Your task to perform on an android device: Add razer blade to the cart on ebay, then select checkout. Image 0: 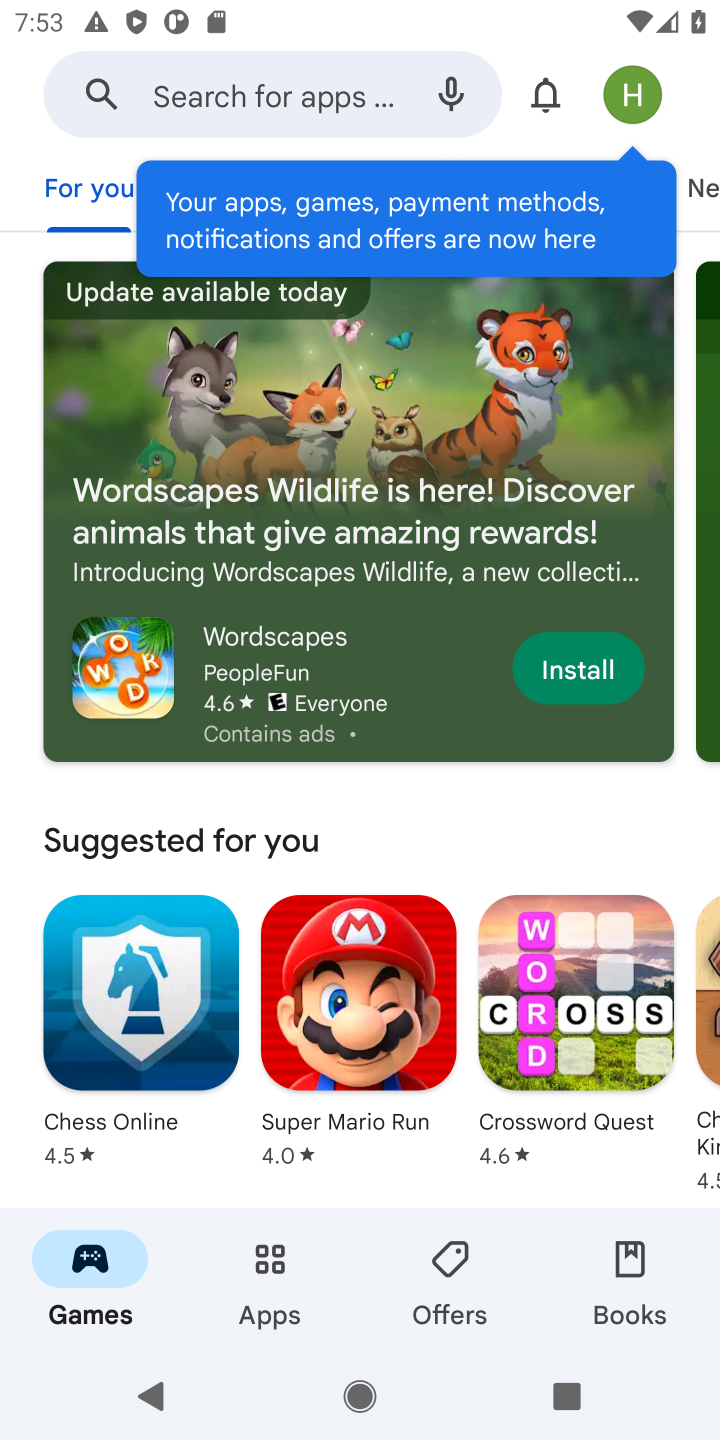
Step 0: press home button
Your task to perform on an android device: Add razer blade to the cart on ebay, then select checkout. Image 1: 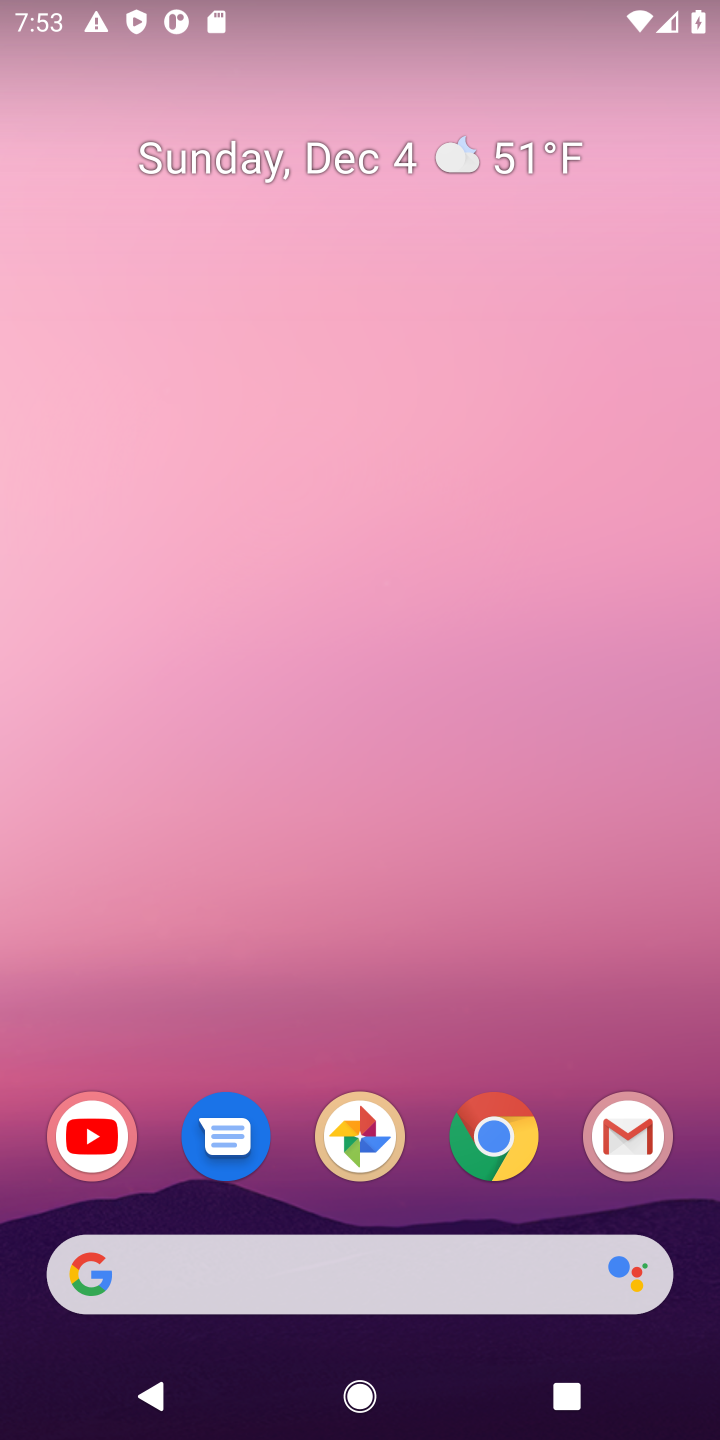
Step 1: click (494, 1152)
Your task to perform on an android device: Add razer blade to the cart on ebay, then select checkout. Image 2: 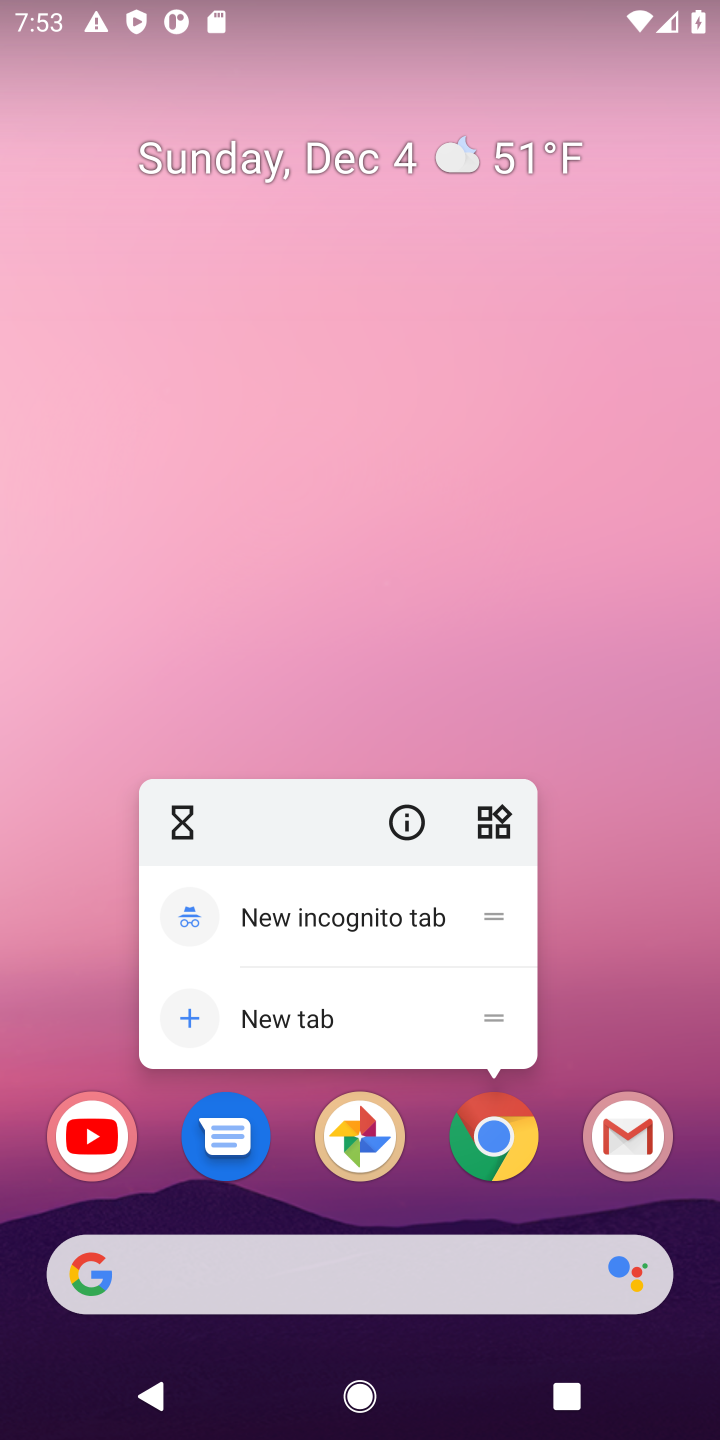
Step 2: click (494, 1152)
Your task to perform on an android device: Add razer blade to the cart on ebay, then select checkout. Image 3: 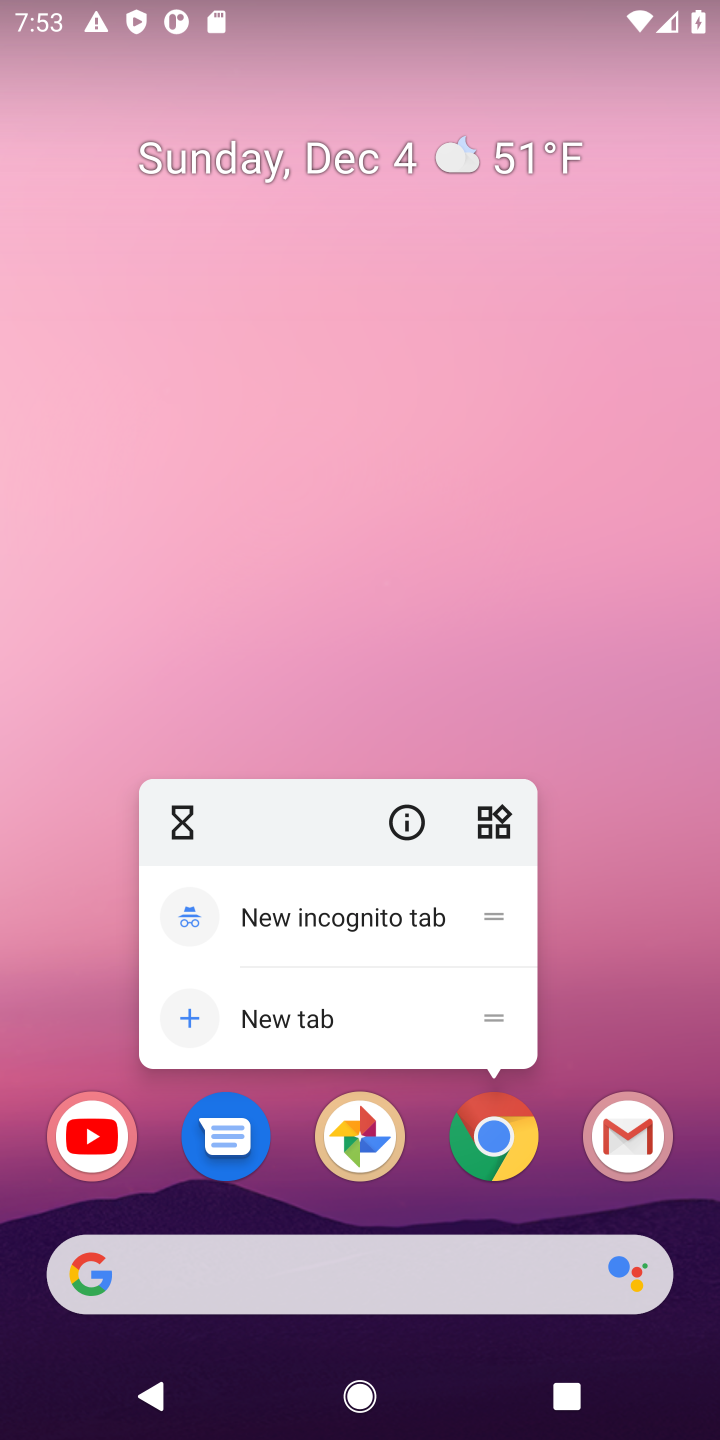
Step 3: click (494, 1150)
Your task to perform on an android device: Add razer blade to the cart on ebay, then select checkout. Image 4: 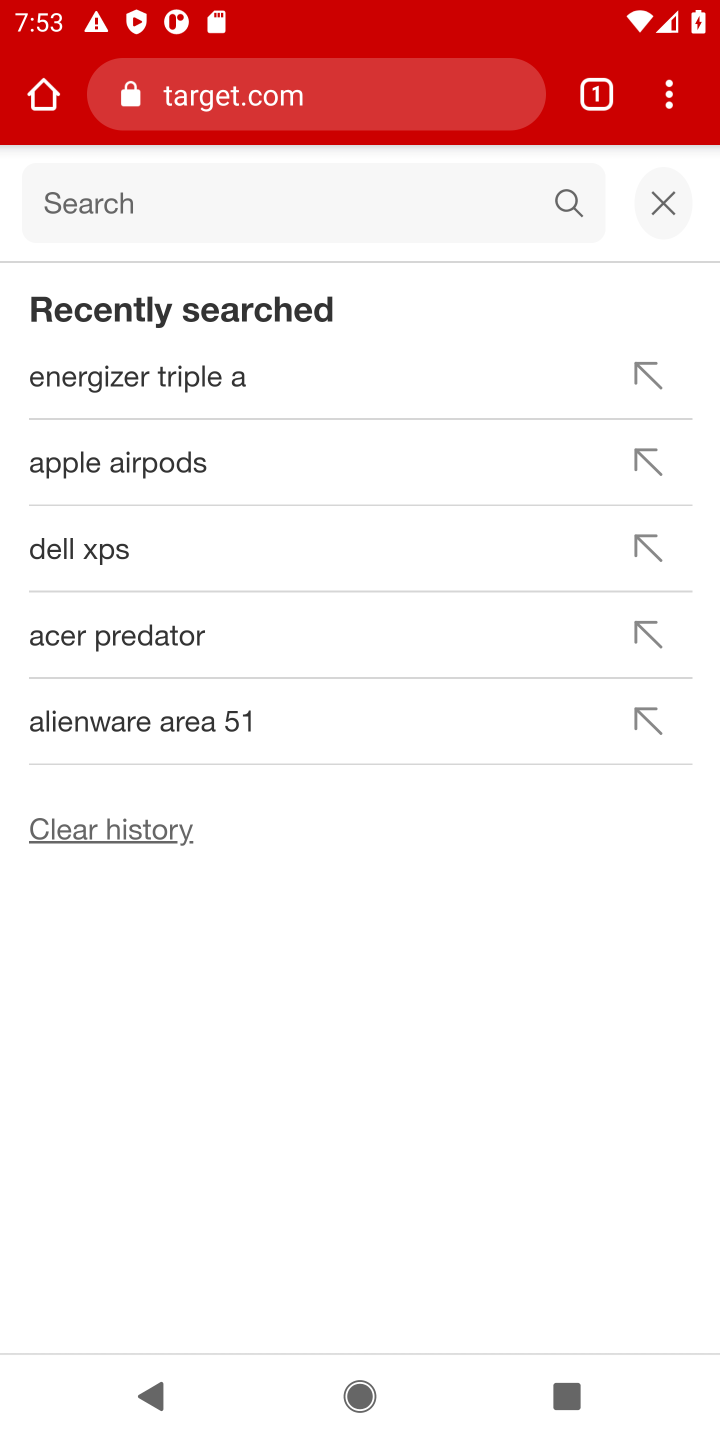
Step 4: click (229, 94)
Your task to perform on an android device: Add razer blade to the cart on ebay, then select checkout. Image 5: 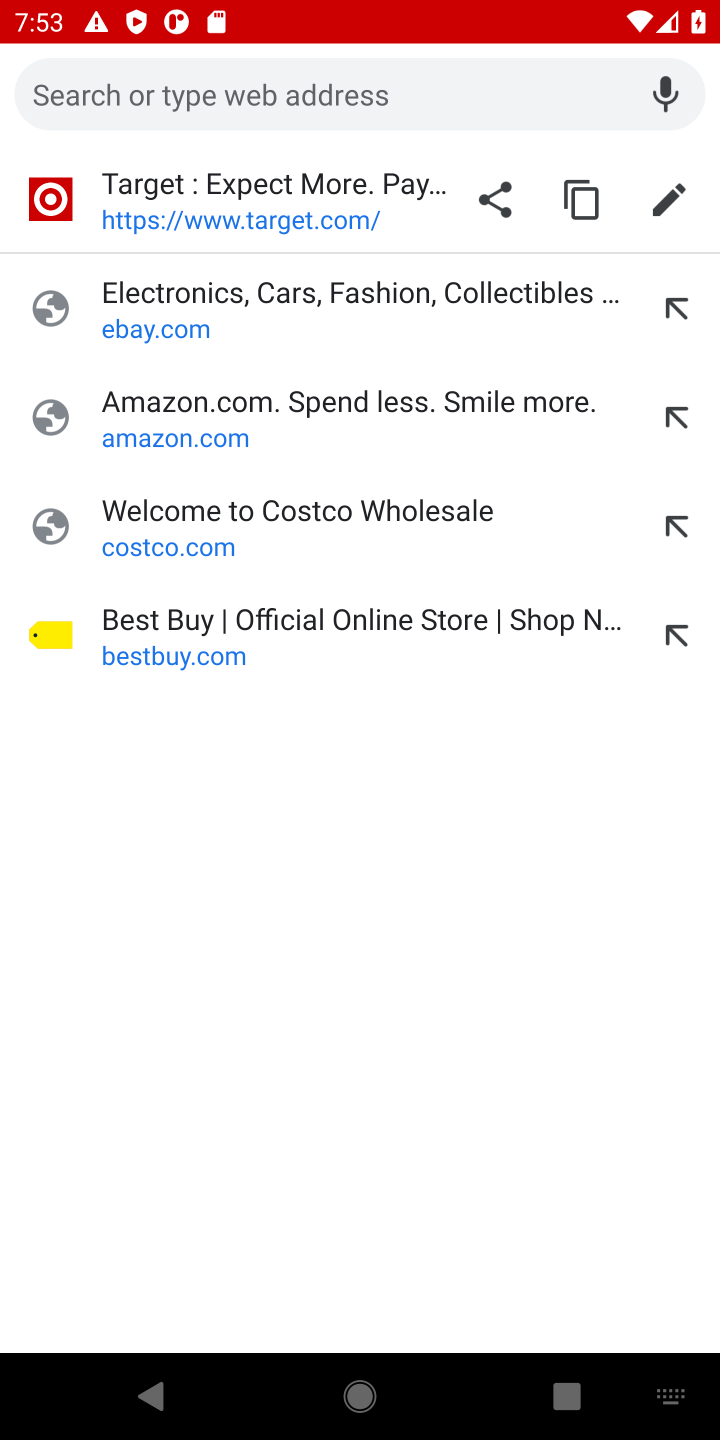
Step 5: click (134, 323)
Your task to perform on an android device: Add razer blade to the cart on ebay, then select checkout. Image 6: 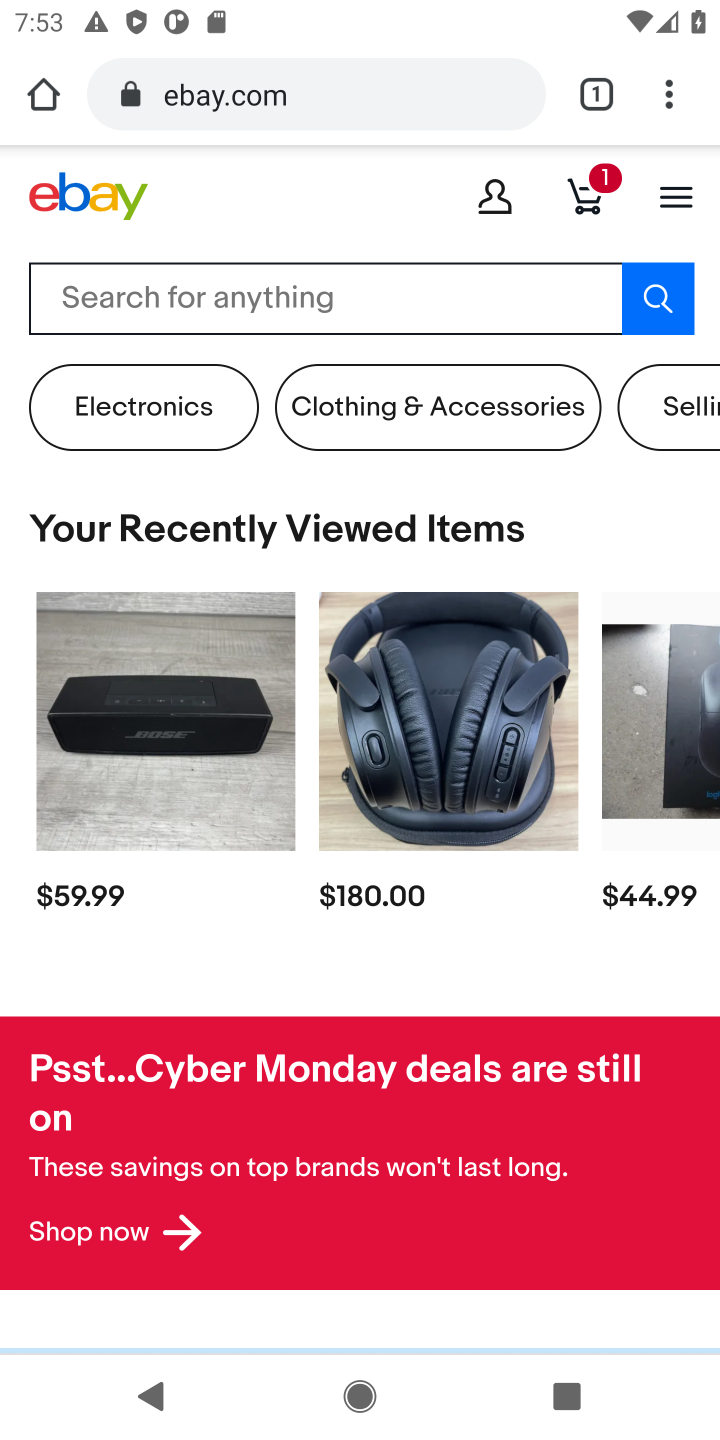
Step 6: click (105, 295)
Your task to perform on an android device: Add razer blade to the cart on ebay, then select checkout. Image 7: 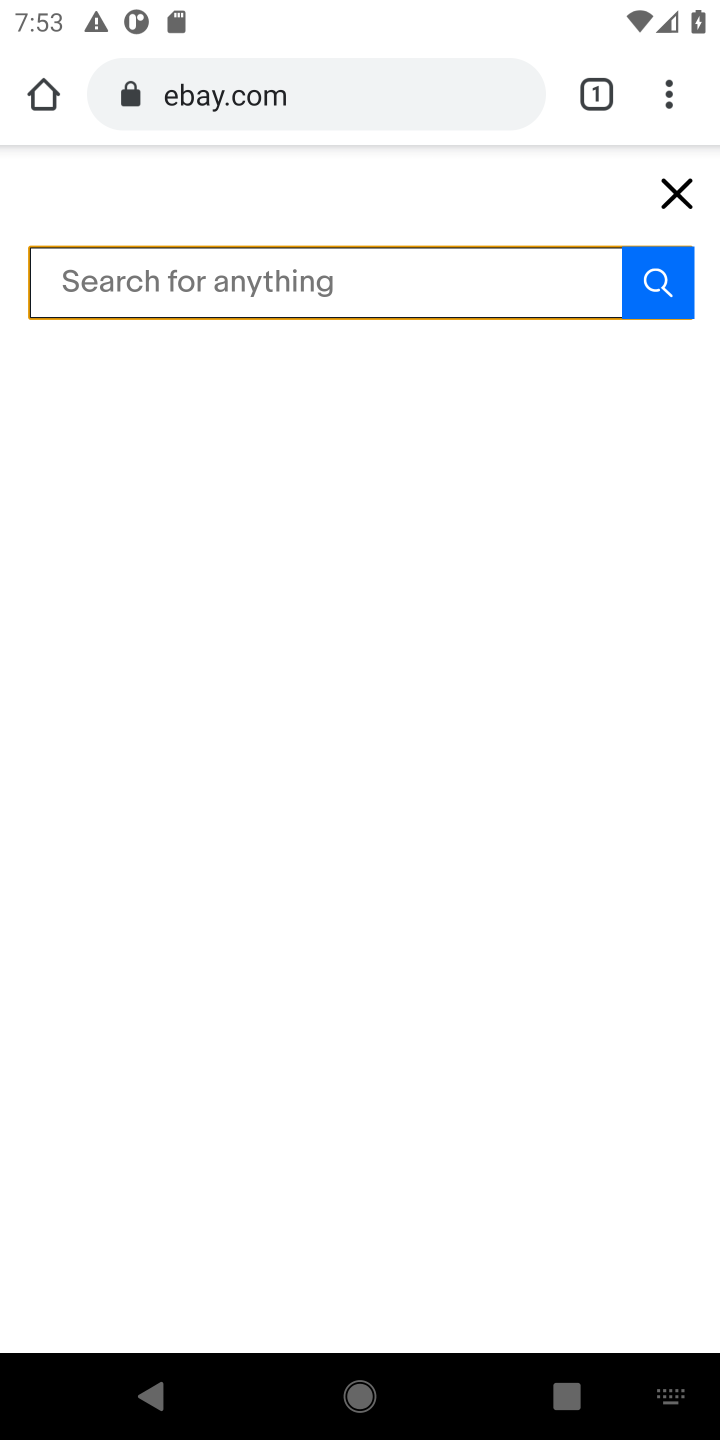
Step 7: type "razer blade"
Your task to perform on an android device: Add razer blade to the cart on ebay, then select checkout. Image 8: 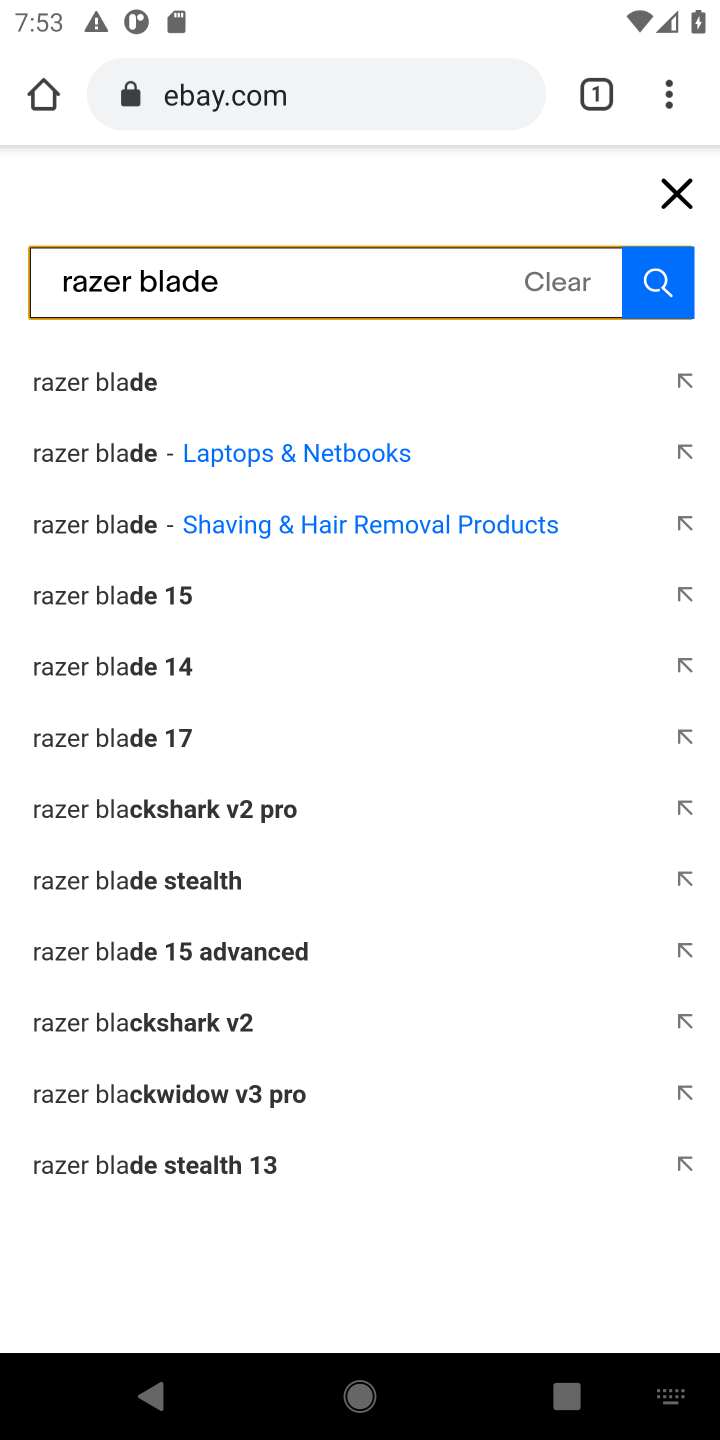
Step 8: click (126, 396)
Your task to perform on an android device: Add razer blade to the cart on ebay, then select checkout. Image 9: 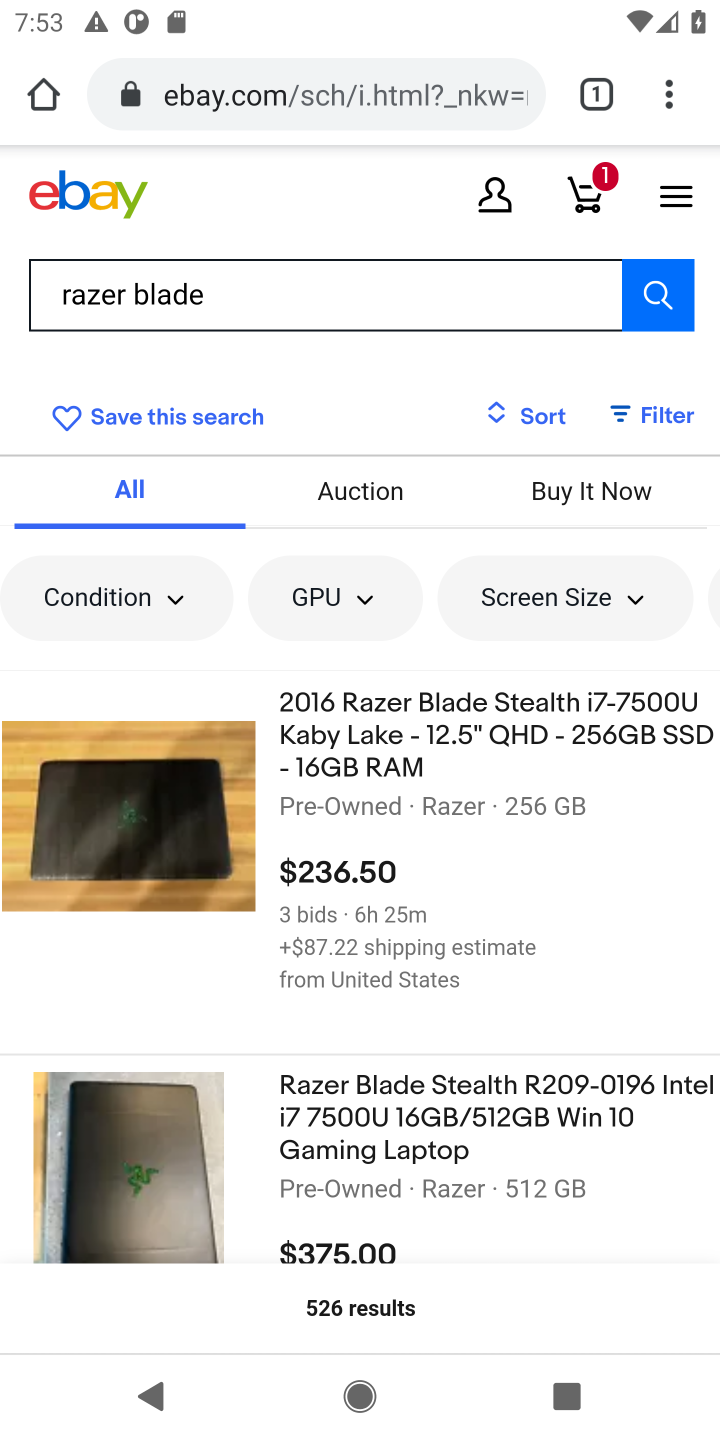
Step 9: drag from (506, 1086) to (496, 763)
Your task to perform on an android device: Add razer blade to the cart on ebay, then select checkout. Image 10: 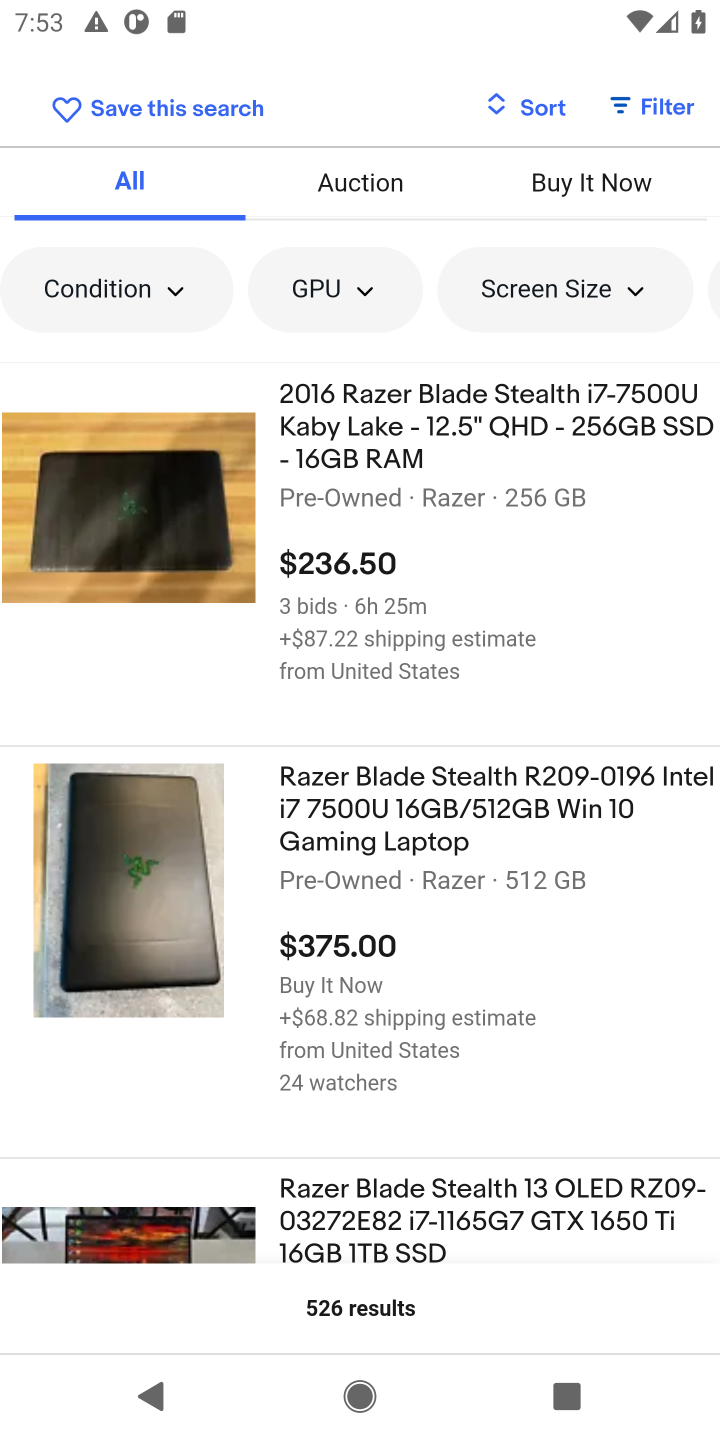
Step 10: click (347, 792)
Your task to perform on an android device: Add razer blade to the cart on ebay, then select checkout. Image 11: 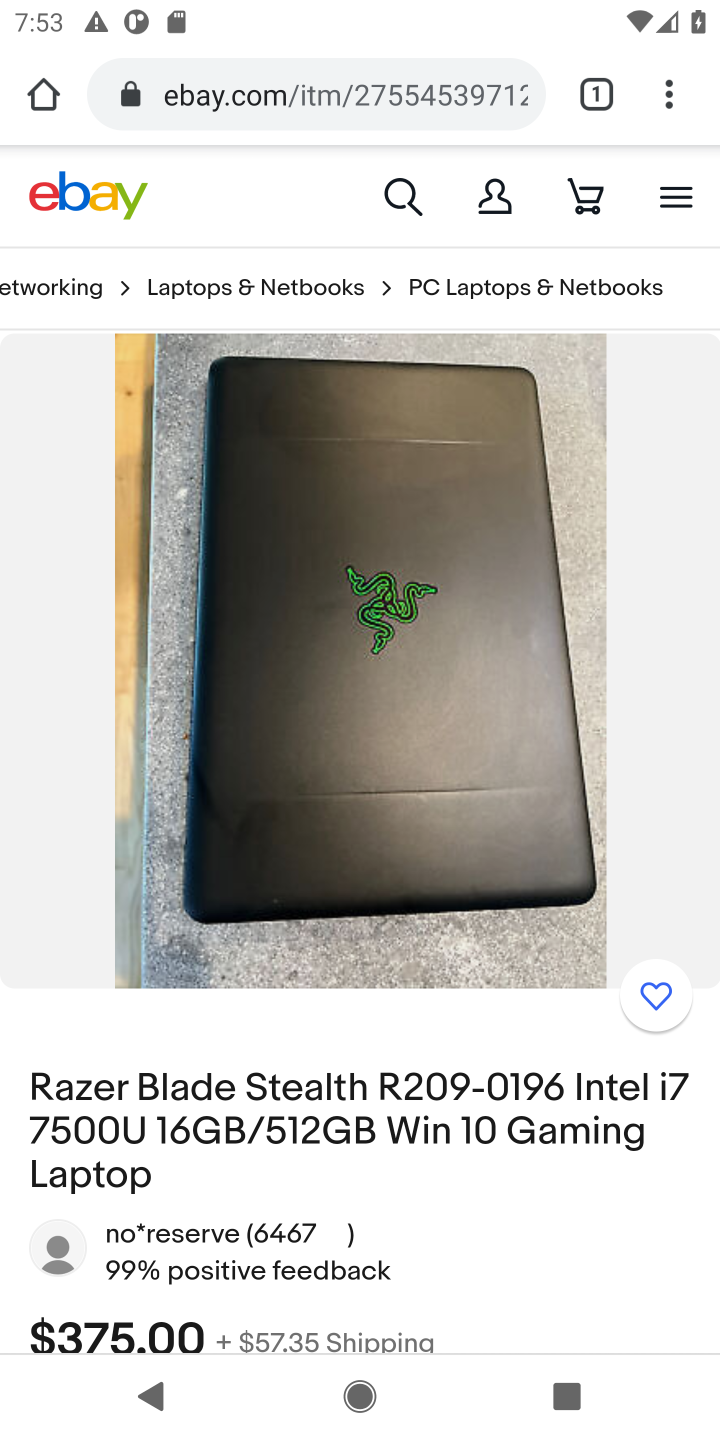
Step 11: drag from (451, 958) to (396, 546)
Your task to perform on an android device: Add razer blade to the cart on ebay, then select checkout. Image 12: 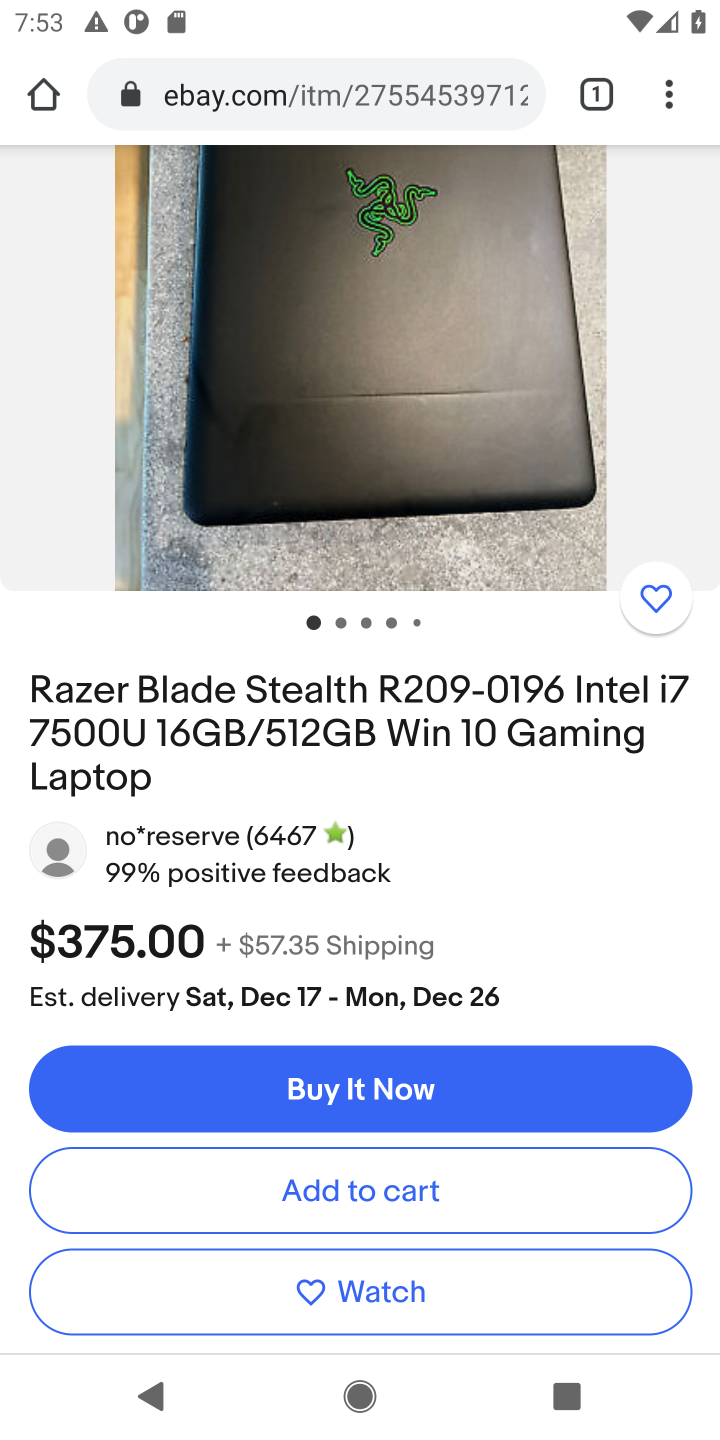
Step 12: click (344, 1198)
Your task to perform on an android device: Add razer blade to the cart on ebay, then select checkout. Image 13: 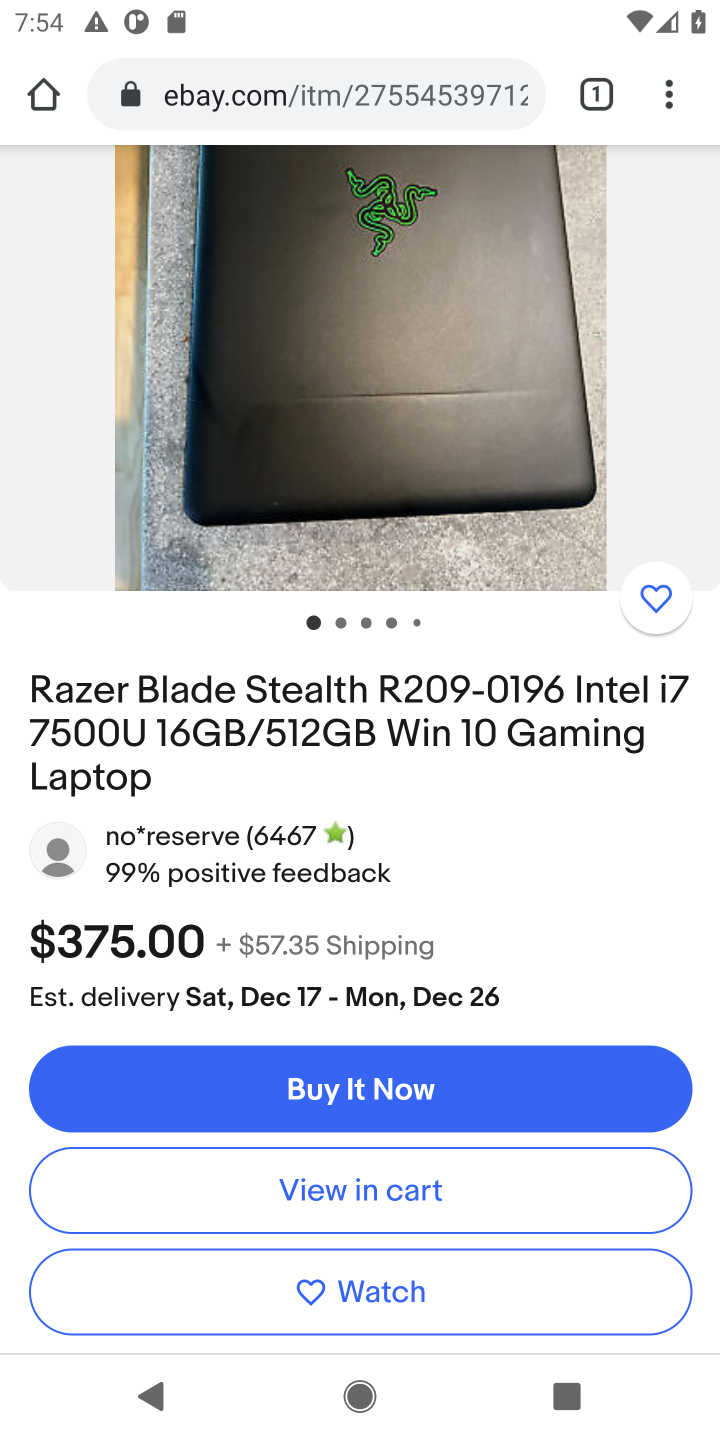
Step 13: click (344, 1198)
Your task to perform on an android device: Add razer blade to the cart on ebay, then select checkout. Image 14: 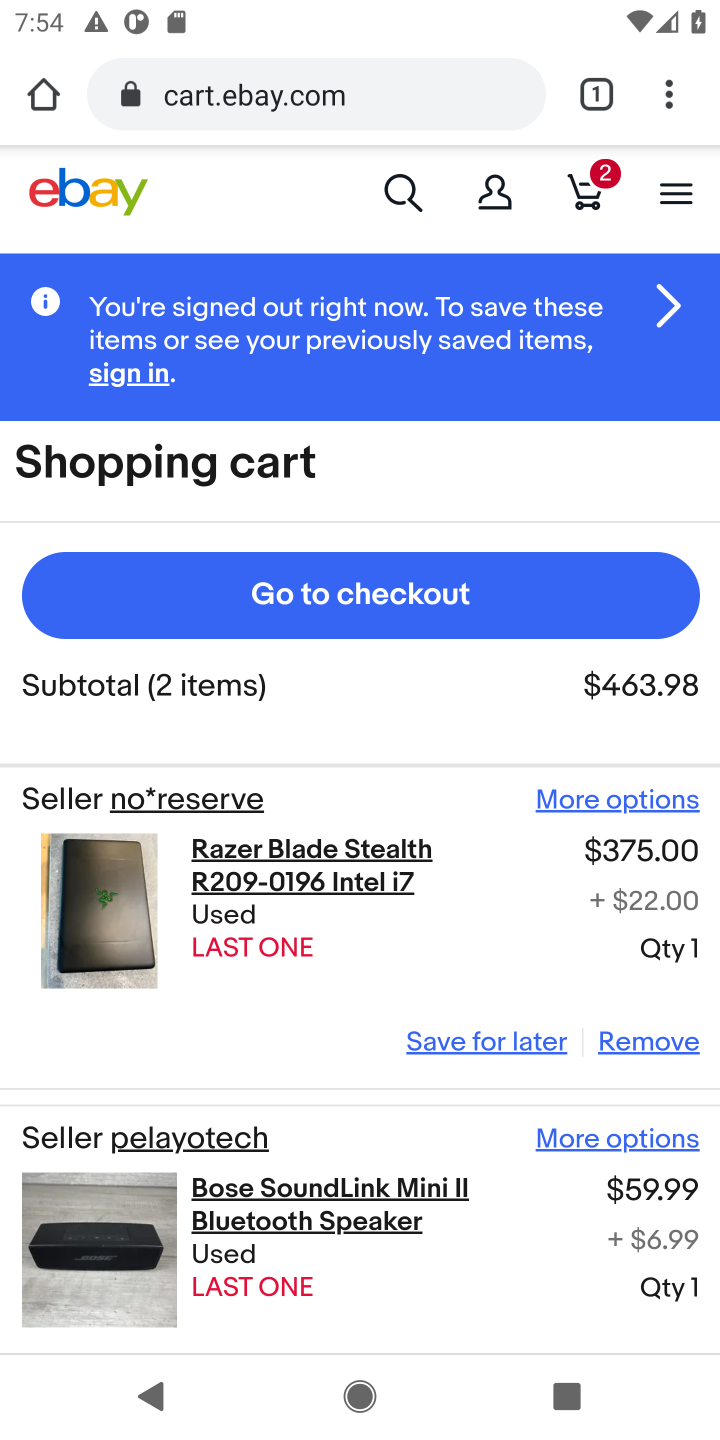
Step 14: click (347, 606)
Your task to perform on an android device: Add razer blade to the cart on ebay, then select checkout. Image 15: 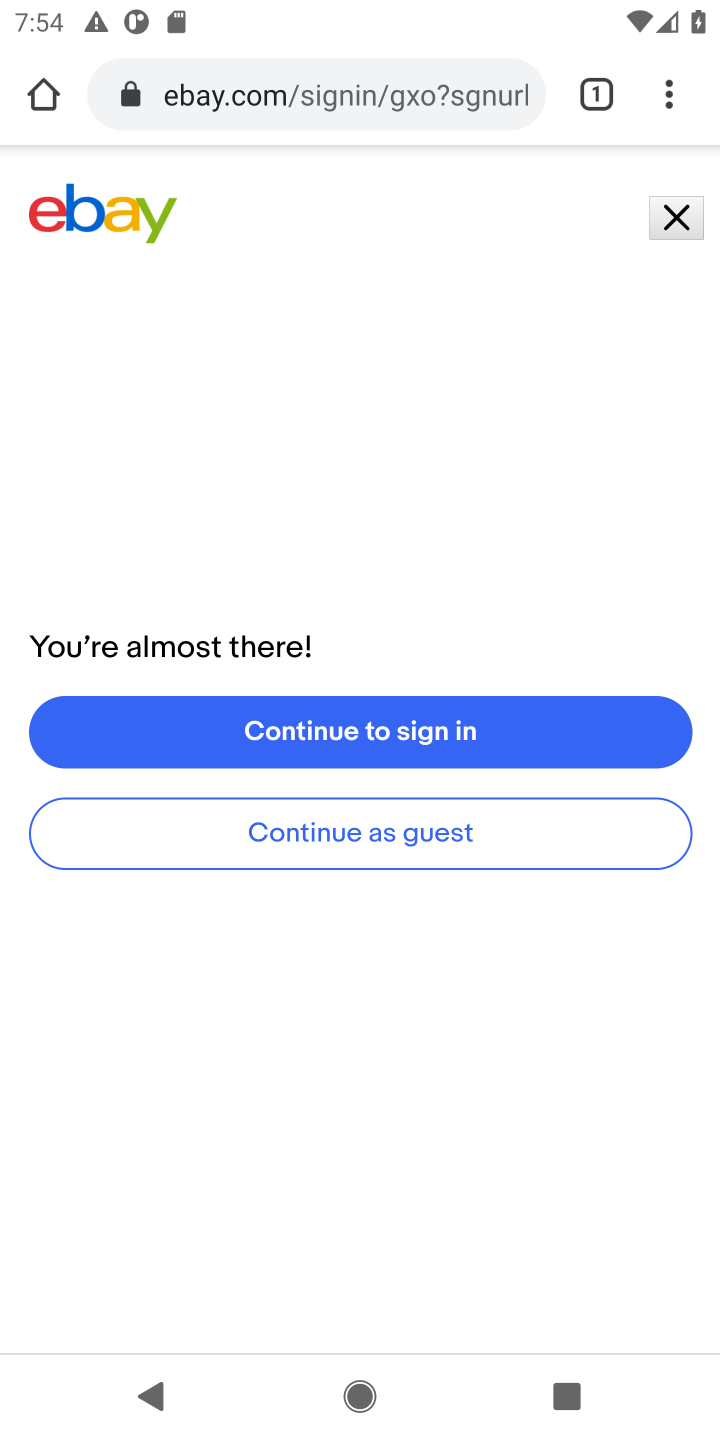
Step 15: task complete